Your task to perform on an android device: change timer sound Image 0: 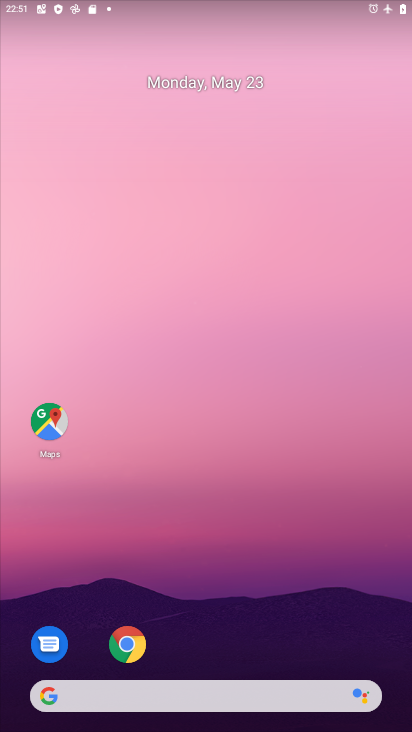
Step 0: drag from (130, 719) to (223, 32)
Your task to perform on an android device: change timer sound Image 1: 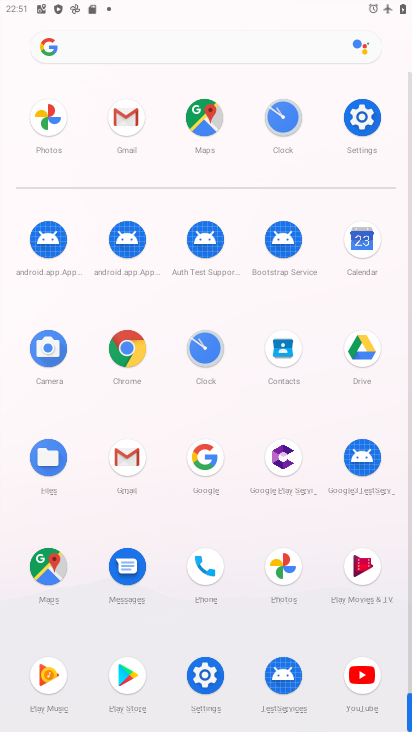
Step 1: click (214, 355)
Your task to perform on an android device: change timer sound Image 2: 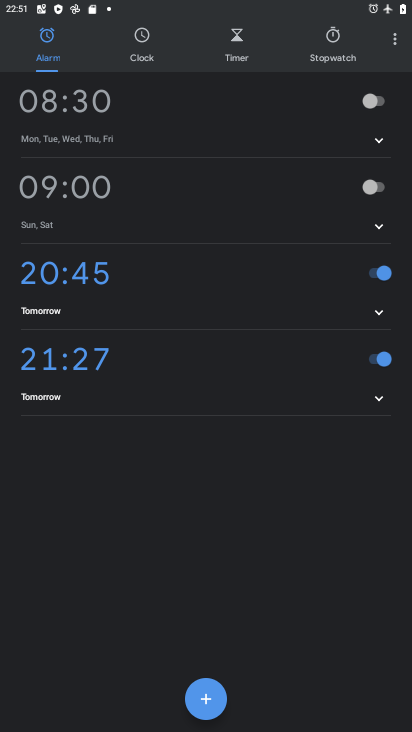
Step 2: click (401, 40)
Your task to perform on an android device: change timer sound Image 3: 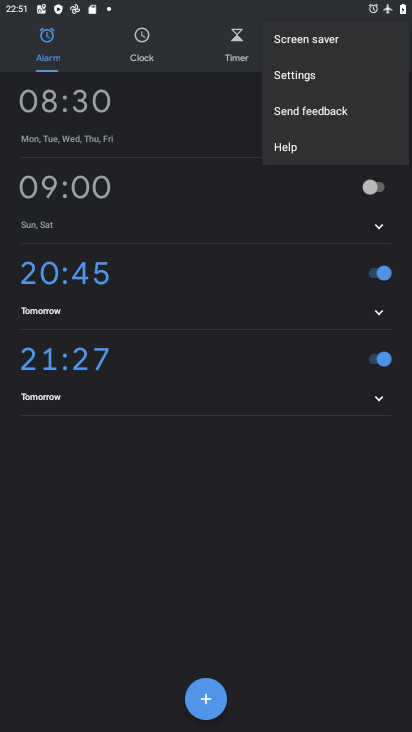
Step 3: click (316, 74)
Your task to perform on an android device: change timer sound Image 4: 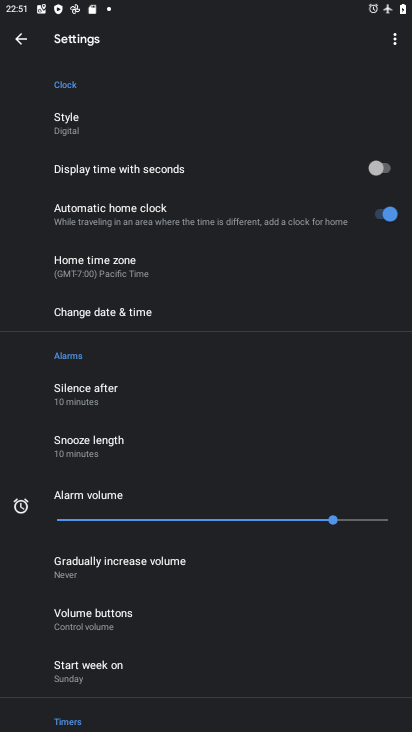
Step 4: drag from (265, 671) to (229, 175)
Your task to perform on an android device: change timer sound Image 5: 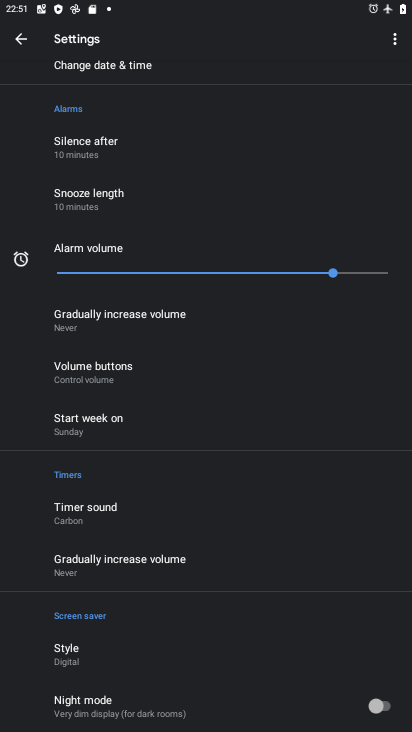
Step 5: click (123, 514)
Your task to perform on an android device: change timer sound Image 6: 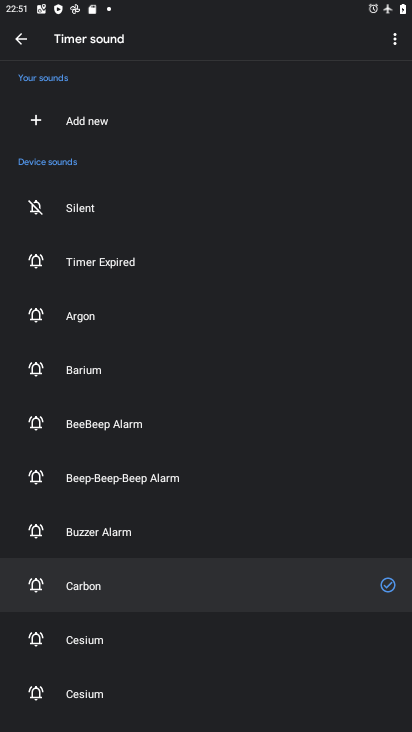
Step 6: click (149, 432)
Your task to perform on an android device: change timer sound Image 7: 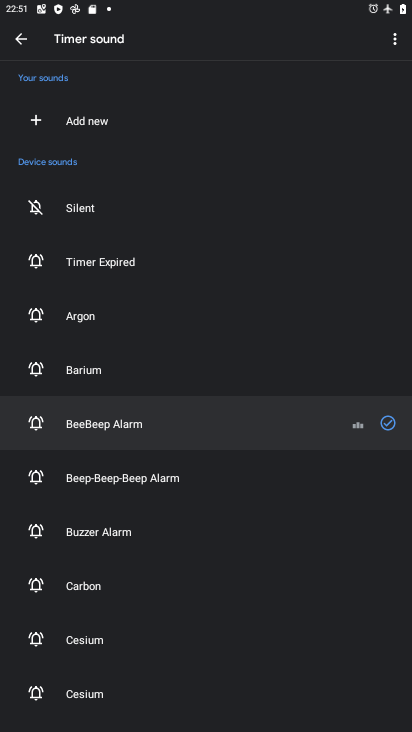
Step 7: task complete